Your task to perform on an android device: turn on airplane mode Image 0: 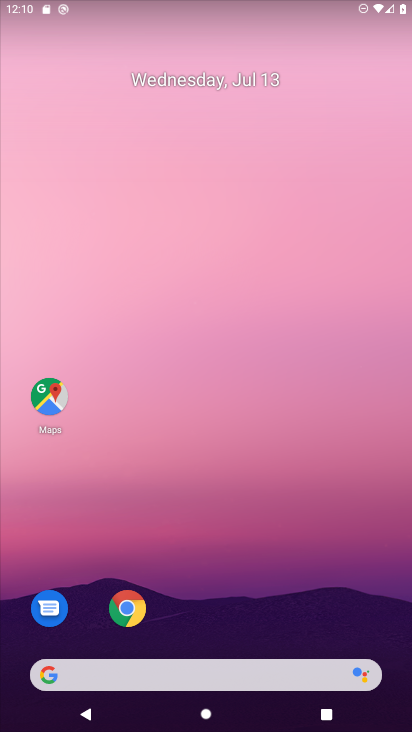
Step 0: drag from (208, 81) to (142, 713)
Your task to perform on an android device: turn on airplane mode Image 1: 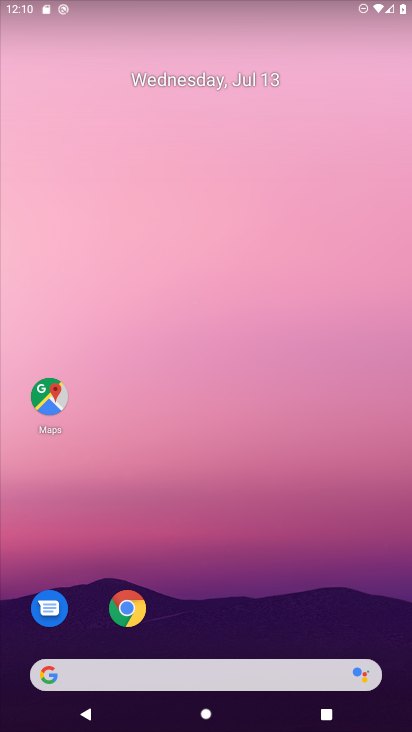
Step 1: drag from (278, 5) to (307, 408)
Your task to perform on an android device: turn on airplane mode Image 2: 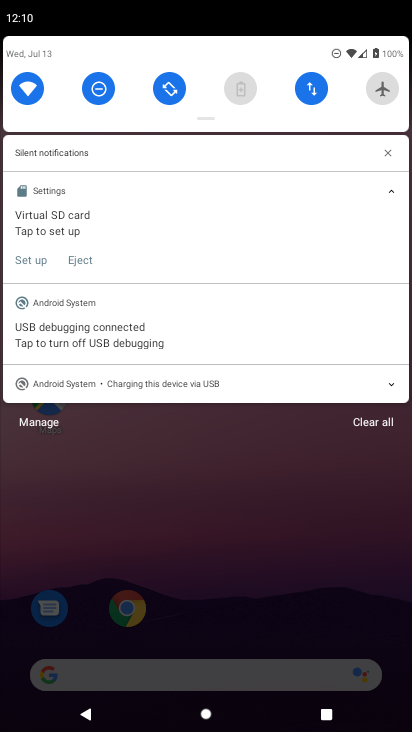
Step 2: click (387, 84)
Your task to perform on an android device: turn on airplane mode Image 3: 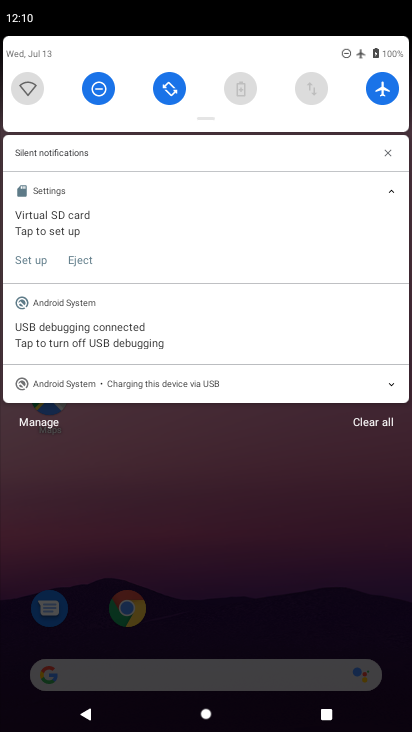
Step 3: task complete